Your task to perform on an android device: toggle airplane mode Image 0: 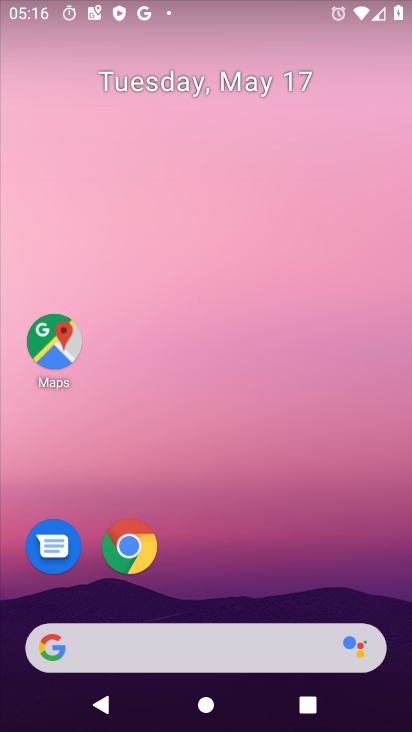
Step 0: drag from (394, 572) to (336, 208)
Your task to perform on an android device: toggle airplane mode Image 1: 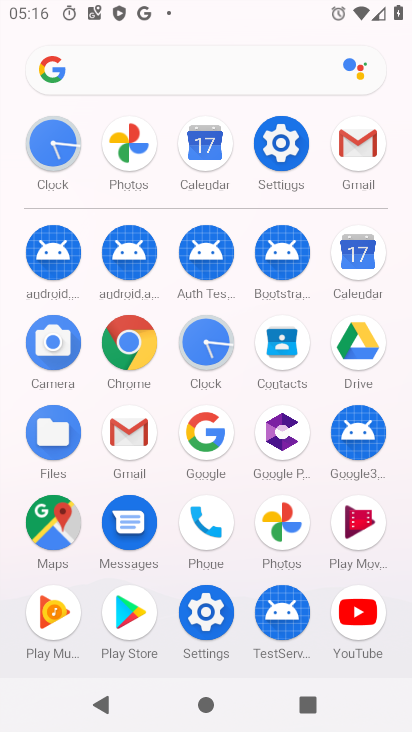
Step 1: click (269, 158)
Your task to perform on an android device: toggle airplane mode Image 2: 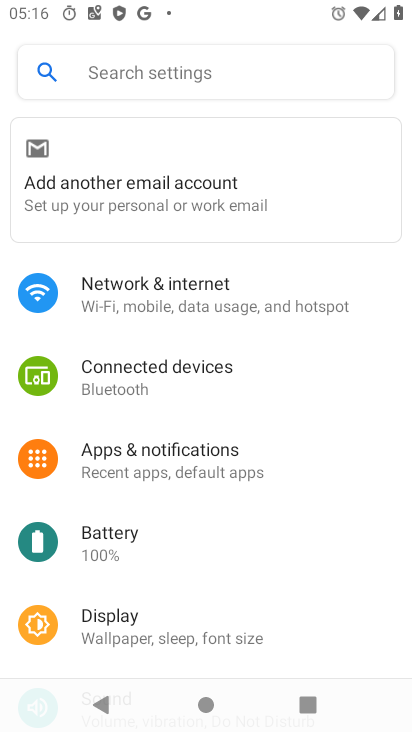
Step 2: click (260, 286)
Your task to perform on an android device: toggle airplane mode Image 3: 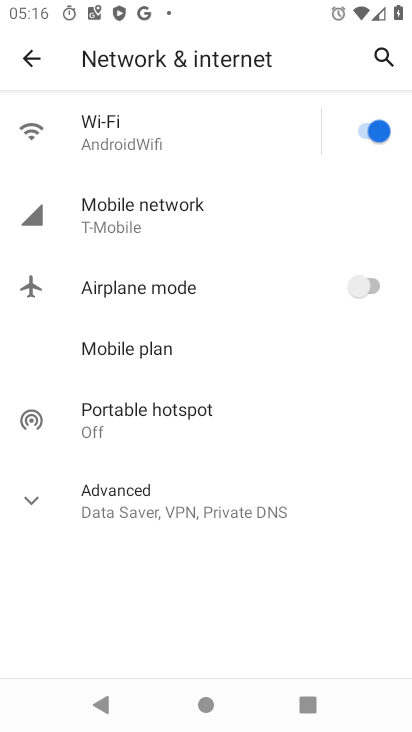
Step 3: click (369, 287)
Your task to perform on an android device: toggle airplane mode Image 4: 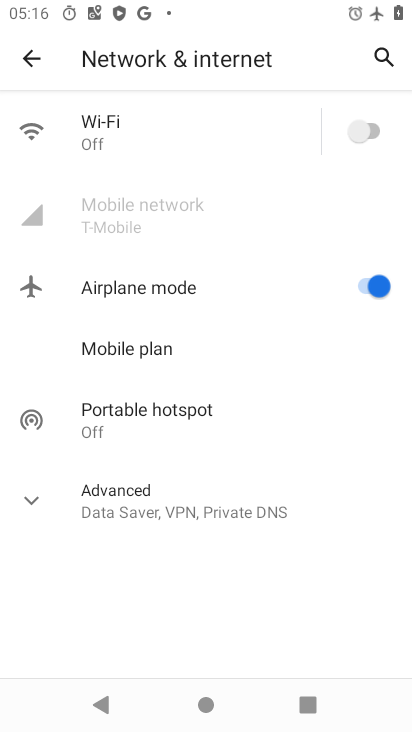
Step 4: task complete